Your task to perform on an android device: Is it going to rain this weekend? Image 0: 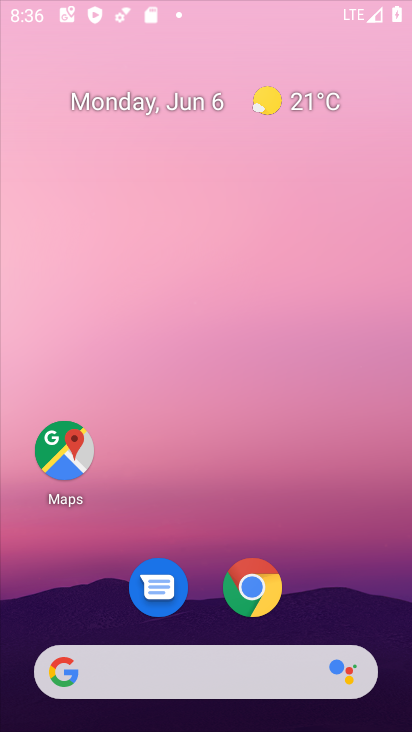
Step 0: drag from (240, 722) to (115, 67)
Your task to perform on an android device: Is it going to rain this weekend? Image 1: 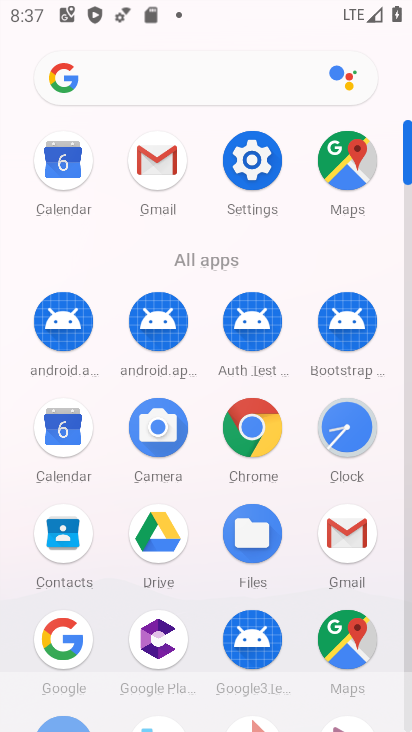
Step 1: press home button
Your task to perform on an android device: Is it going to rain this weekend? Image 2: 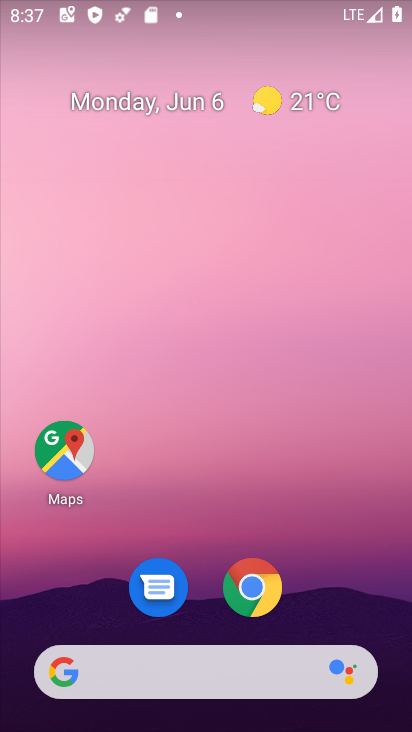
Step 2: click (249, 662)
Your task to perform on an android device: Is it going to rain this weekend? Image 3: 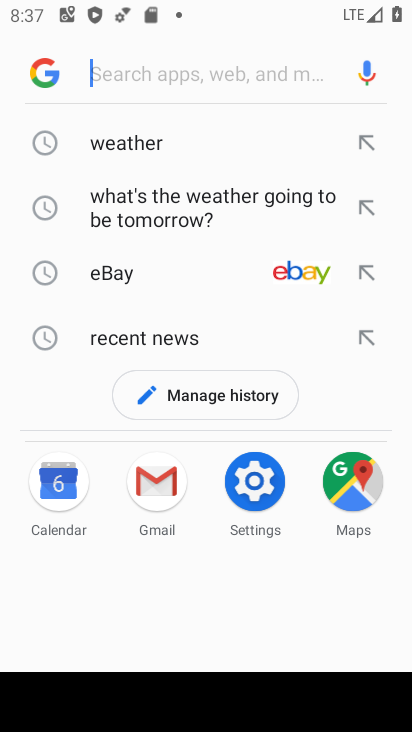
Step 3: type "Is it going to rain this weekend?"
Your task to perform on an android device: Is it going to rain this weekend? Image 4: 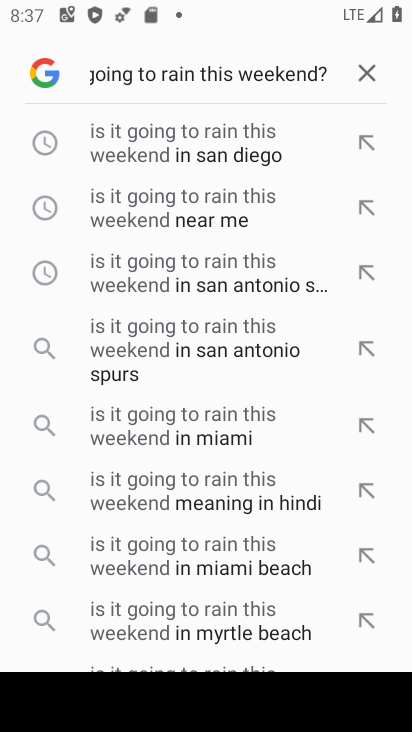
Step 4: click (257, 209)
Your task to perform on an android device: Is it going to rain this weekend? Image 5: 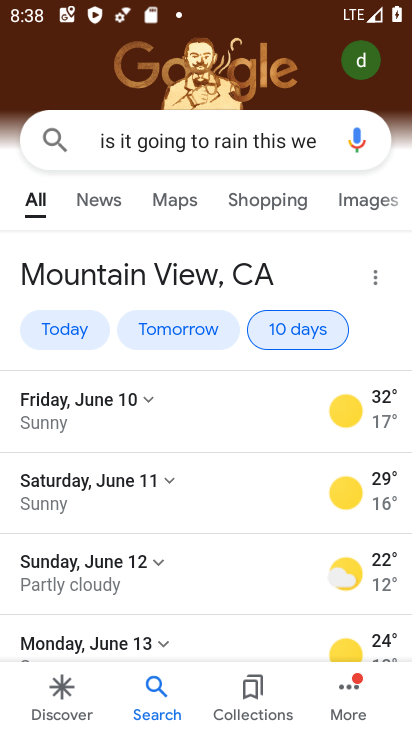
Step 5: task complete